Your task to perform on an android device: turn on wifi Image 0: 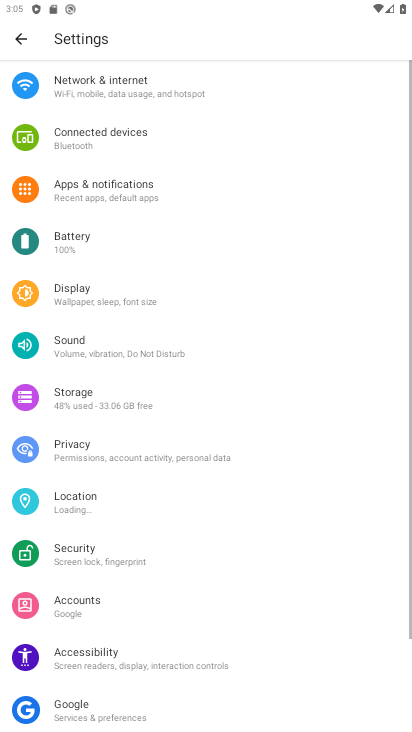
Step 0: click (114, 97)
Your task to perform on an android device: turn on wifi Image 1: 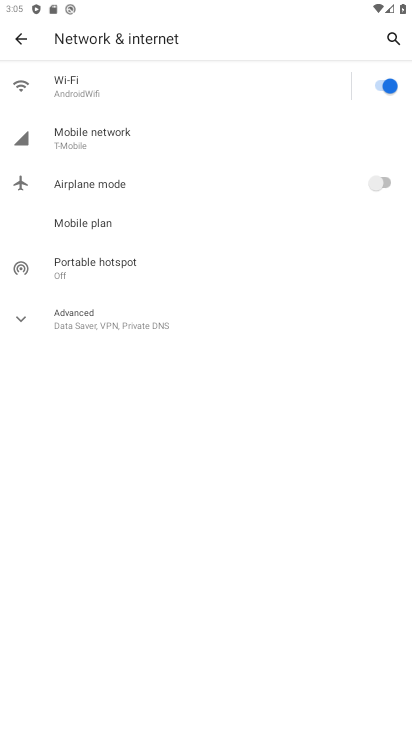
Step 1: click (169, 100)
Your task to perform on an android device: turn on wifi Image 2: 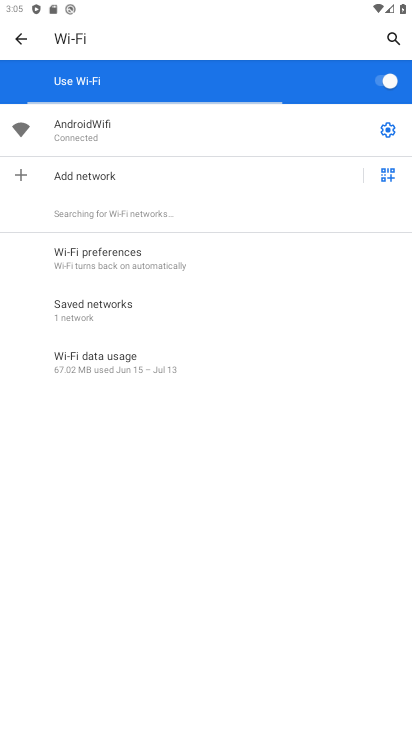
Step 2: task complete